Your task to perform on an android device: Go to wifi settings Image 0: 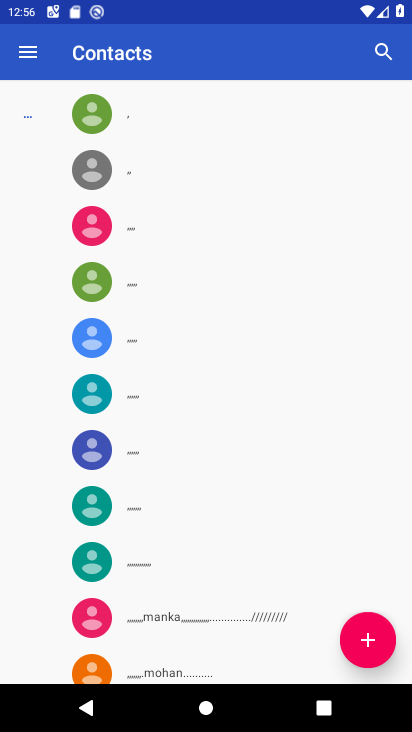
Step 0: press home button
Your task to perform on an android device: Go to wifi settings Image 1: 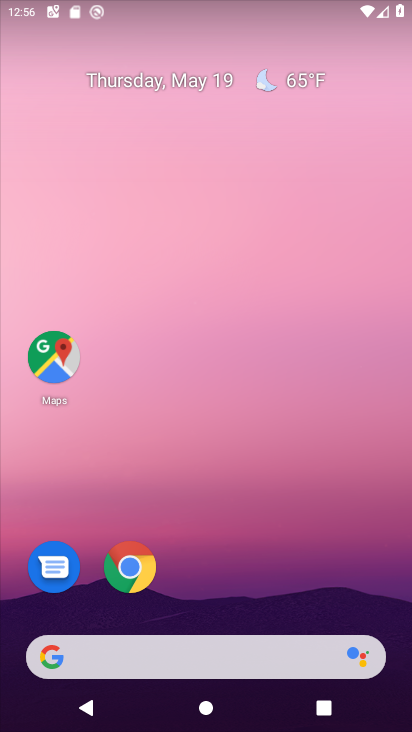
Step 1: drag from (260, 570) to (222, 108)
Your task to perform on an android device: Go to wifi settings Image 2: 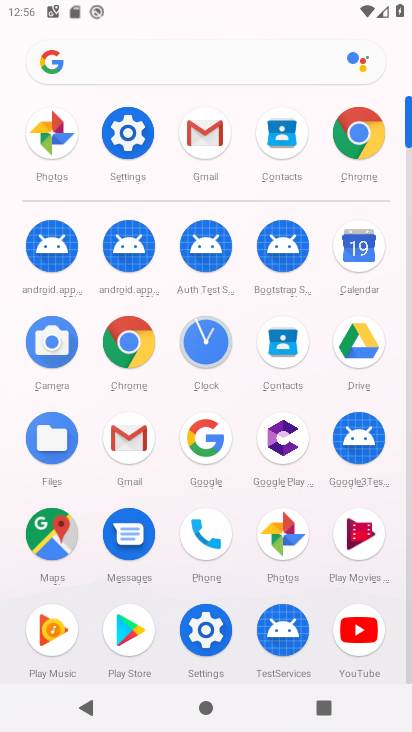
Step 2: click (127, 135)
Your task to perform on an android device: Go to wifi settings Image 3: 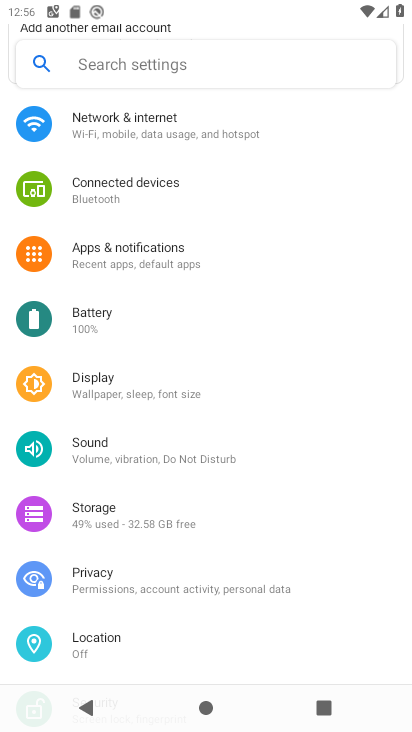
Step 3: click (127, 135)
Your task to perform on an android device: Go to wifi settings Image 4: 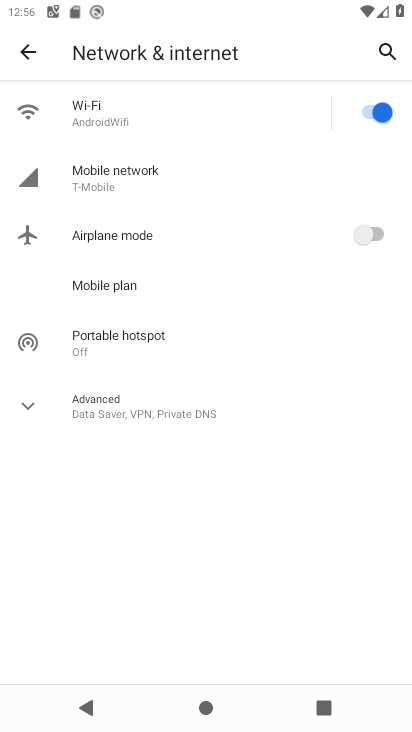
Step 4: click (86, 117)
Your task to perform on an android device: Go to wifi settings Image 5: 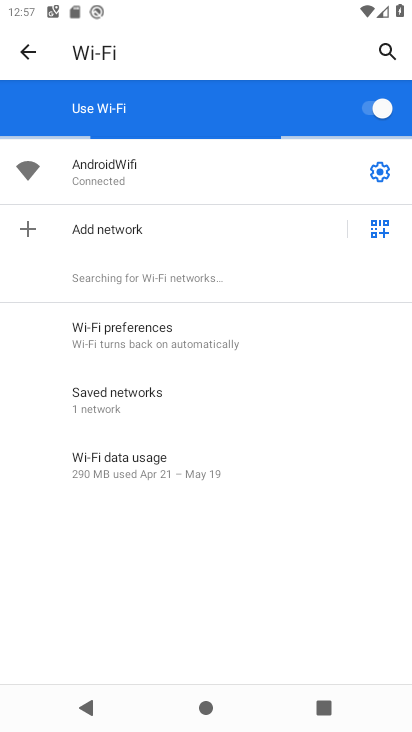
Step 5: task complete